Your task to perform on an android device: Go to battery settings Image 0: 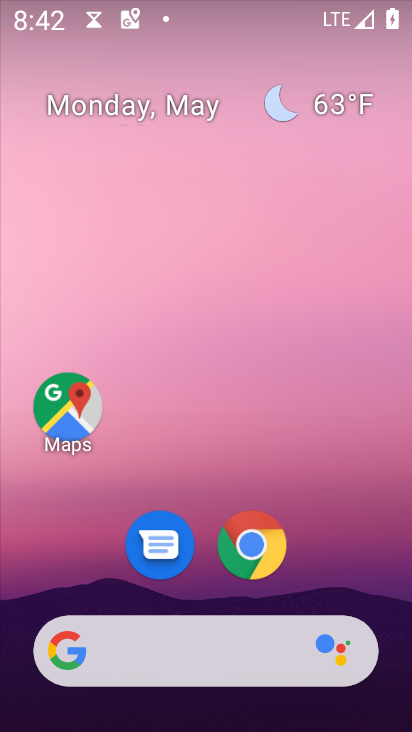
Step 0: press home button
Your task to perform on an android device: Go to battery settings Image 1: 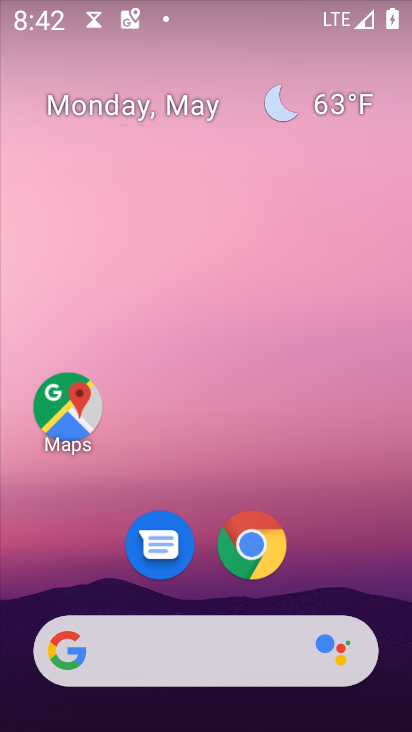
Step 1: drag from (206, 648) to (217, 187)
Your task to perform on an android device: Go to battery settings Image 2: 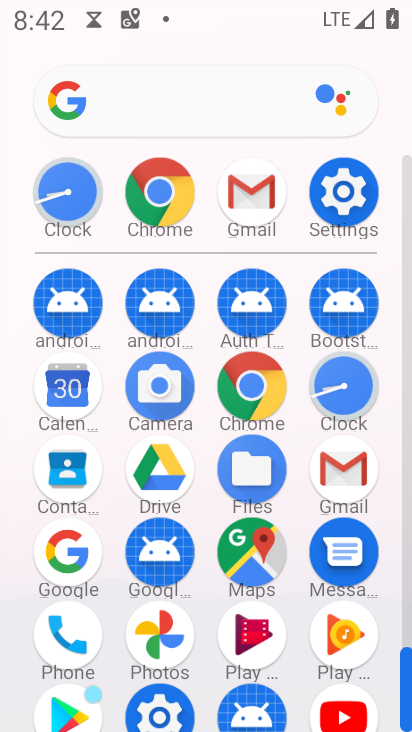
Step 2: click (329, 210)
Your task to perform on an android device: Go to battery settings Image 3: 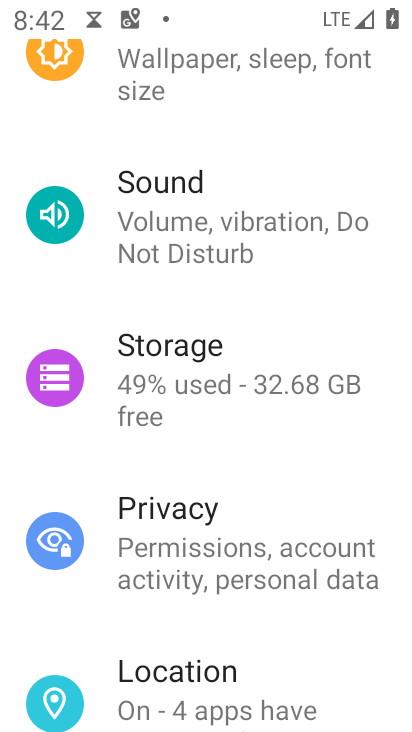
Step 3: drag from (202, 462) to (231, 648)
Your task to perform on an android device: Go to battery settings Image 4: 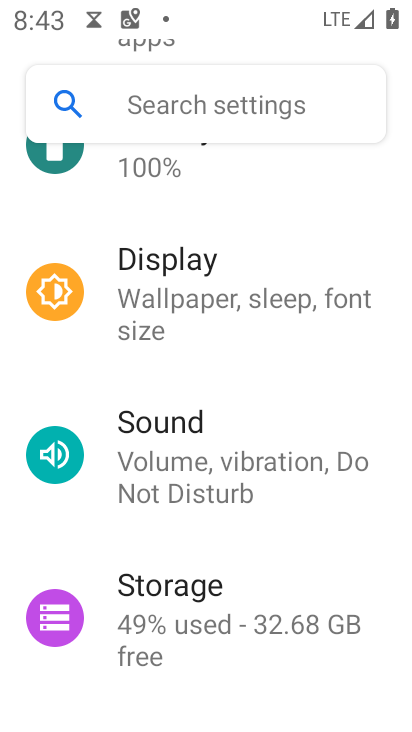
Step 4: click (148, 166)
Your task to perform on an android device: Go to battery settings Image 5: 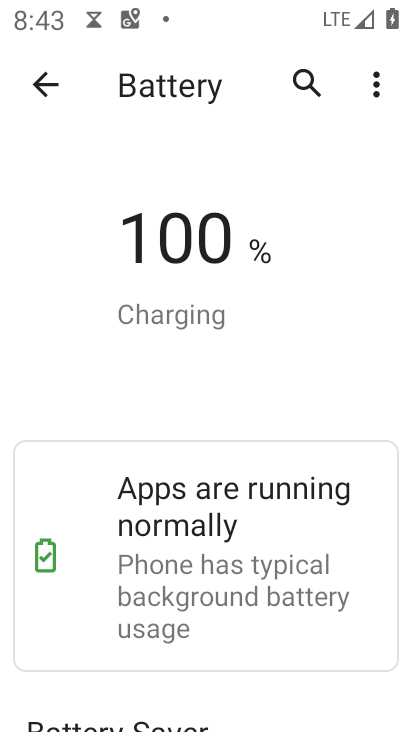
Step 5: task complete